Your task to perform on an android device: open a bookmark in the chrome app Image 0: 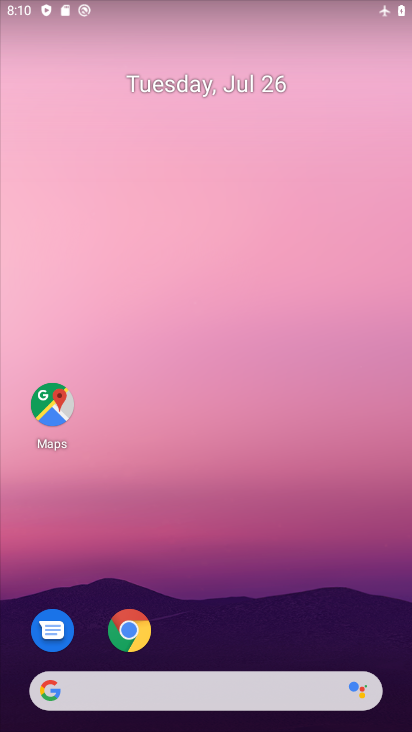
Step 0: drag from (307, 614) to (231, 138)
Your task to perform on an android device: open a bookmark in the chrome app Image 1: 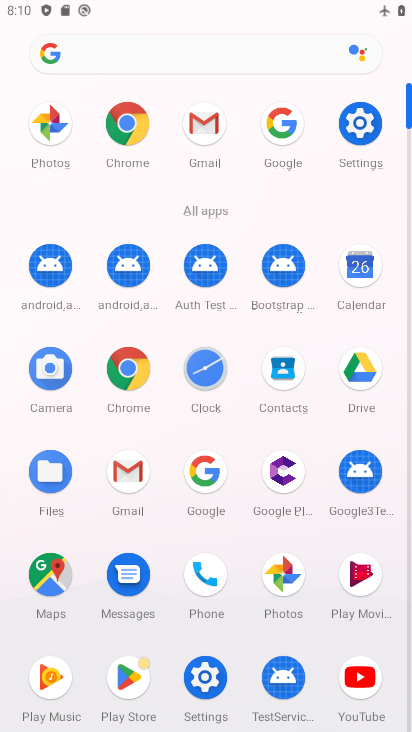
Step 1: click (111, 130)
Your task to perform on an android device: open a bookmark in the chrome app Image 2: 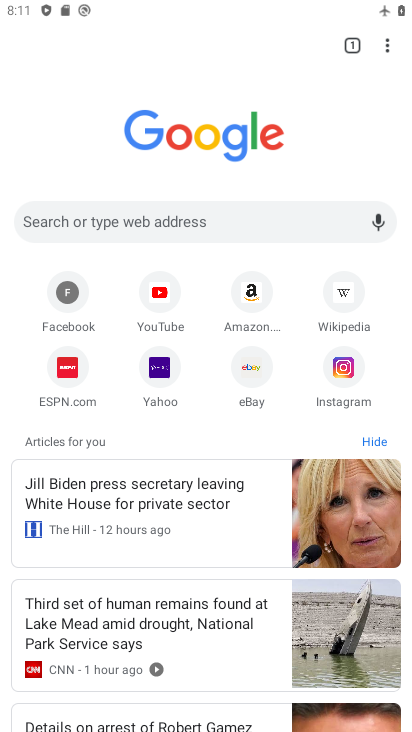
Step 2: task complete